Your task to perform on an android device: What's on my calendar tomorrow? Image 0: 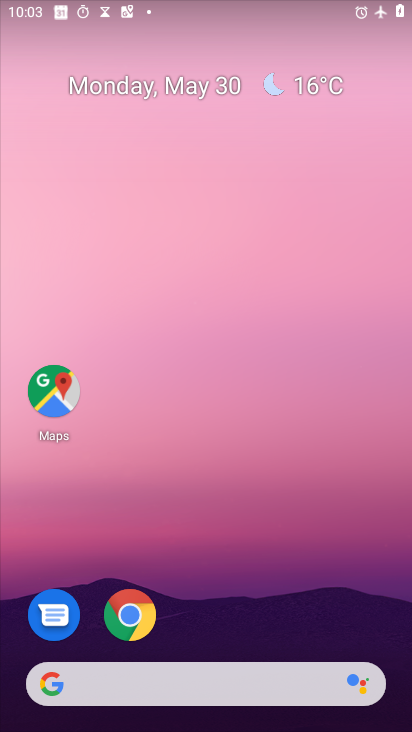
Step 0: drag from (328, 531) to (315, 119)
Your task to perform on an android device: What's on my calendar tomorrow? Image 1: 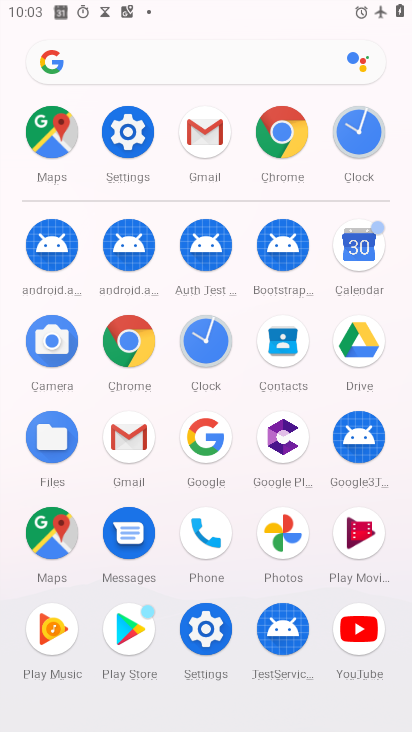
Step 1: click (369, 248)
Your task to perform on an android device: What's on my calendar tomorrow? Image 2: 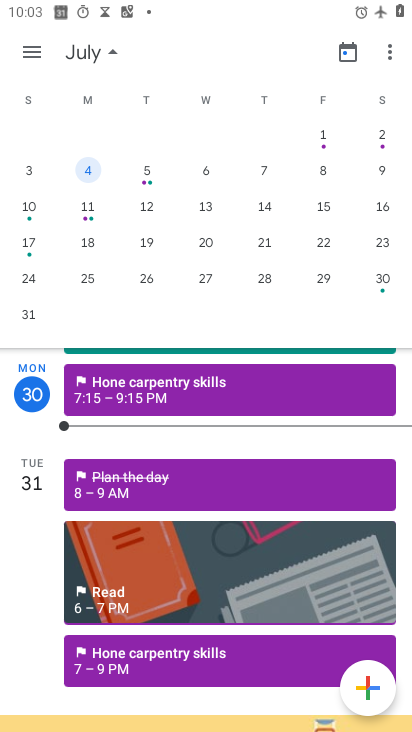
Step 2: click (136, 167)
Your task to perform on an android device: What's on my calendar tomorrow? Image 3: 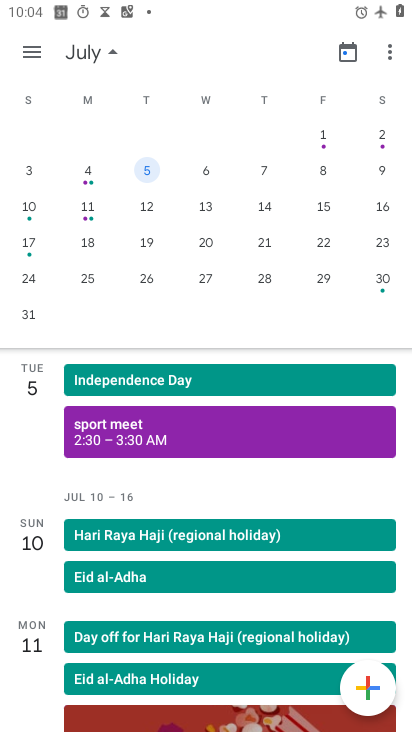
Step 3: task complete